Your task to perform on an android device: uninstall "Cash App" Image 0: 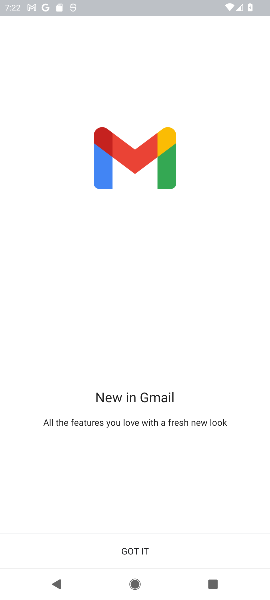
Step 0: press back button
Your task to perform on an android device: uninstall "Cash App" Image 1: 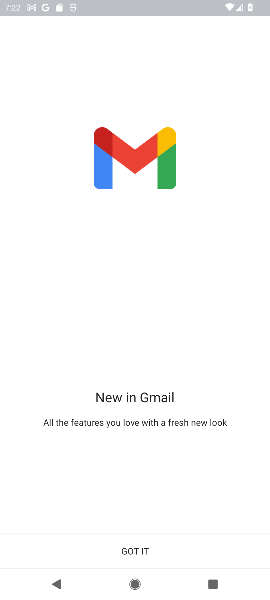
Step 1: press back button
Your task to perform on an android device: uninstall "Cash App" Image 2: 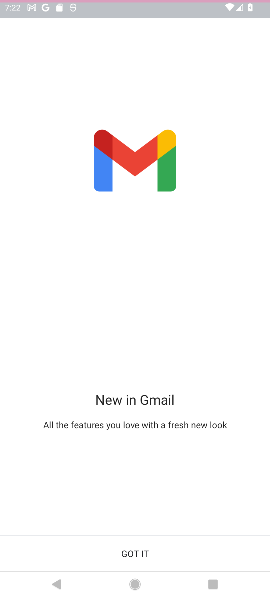
Step 2: press back button
Your task to perform on an android device: uninstall "Cash App" Image 3: 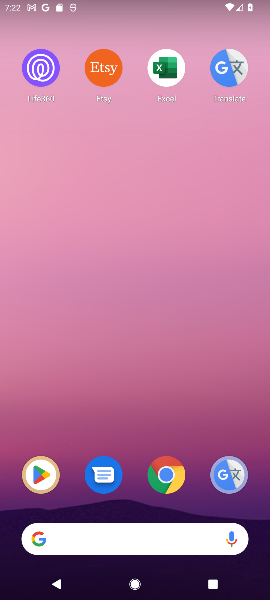
Step 3: drag from (167, 518) to (107, 78)
Your task to perform on an android device: uninstall "Cash App" Image 4: 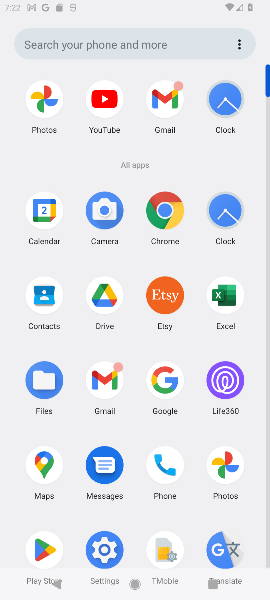
Step 4: drag from (183, 418) to (123, 27)
Your task to perform on an android device: uninstall "Cash App" Image 5: 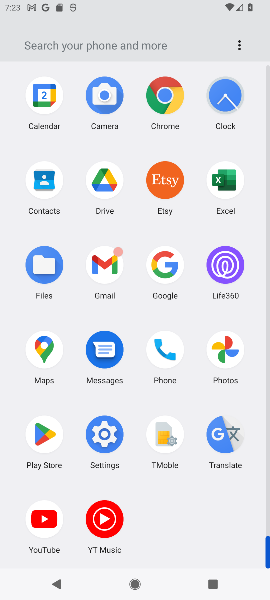
Step 5: click (46, 431)
Your task to perform on an android device: uninstall "Cash App" Image 6: 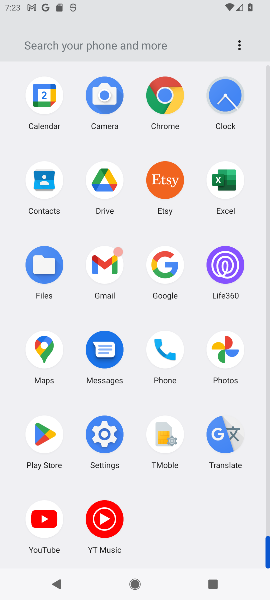
Step 6: click (47, 431)
Your task to perform on an android device: uninstall "Cash App" Image 7: 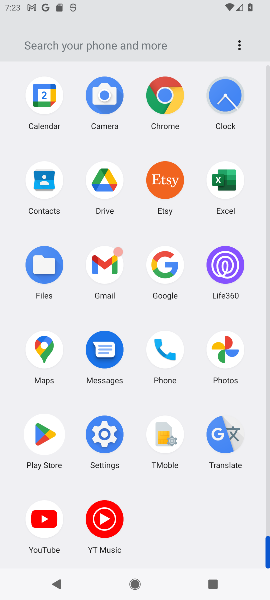
Step 7: click (47, 431)
Your task to perform on an android device: uninstall "Cash App" Image 8: 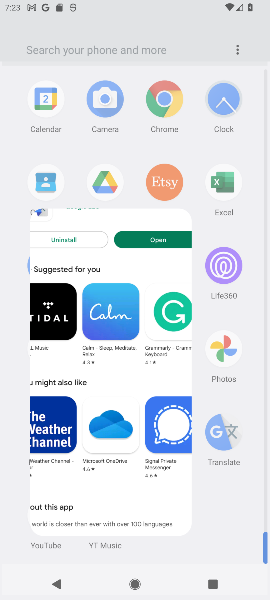
Step 8: click (47, 431)
Your task to perform on an android device: uninstall "Cash App" Image 9: 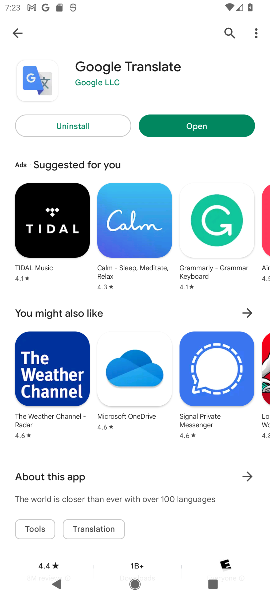
Step 9: click (16, 33)
Your task to perform on an android device: uninstall "Cash App" Image 10: 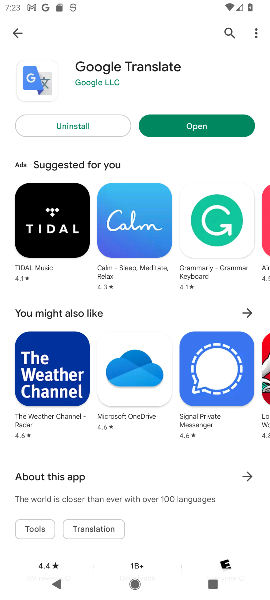
Step 10: click (15, 32)
Your task to perform on an android device: uninstall "Cash App" Image 11: 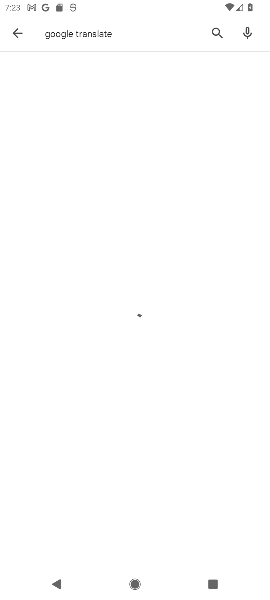
Step 11: click (15, 32)
Your task to perform on an android device: uninstall "Cash App" Image 12: 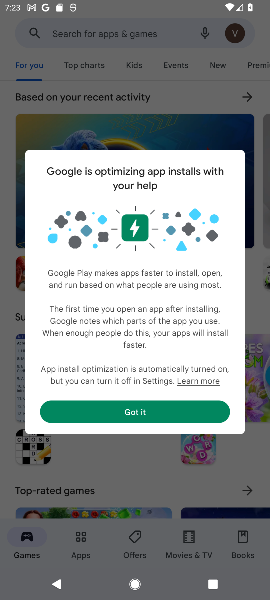
Step 12: click (88, 31)
Your task to perform on an android device: uninstall "Cash App" Image 13: 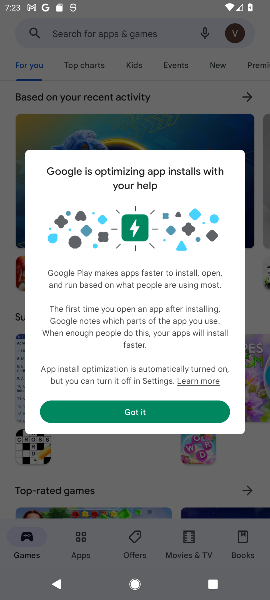
Step 13: click (88, 31)
Your task to perform on an android device: uninstall "Cash App" Image 14: 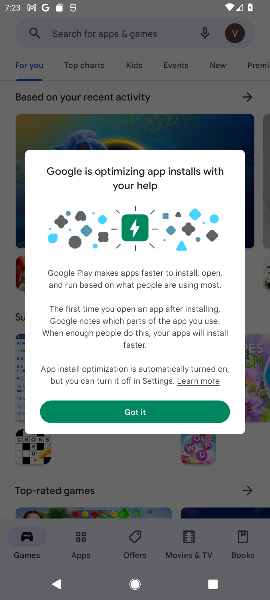
Step 14: click (89, 30)
Your task to perform on an android device: uninstall "Cash App" Image 15: 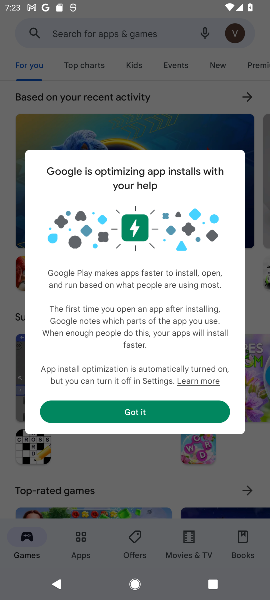
Step 15: click (71, 21)
Your task to perform on an android device: uninstall "Cash App" Image 16: 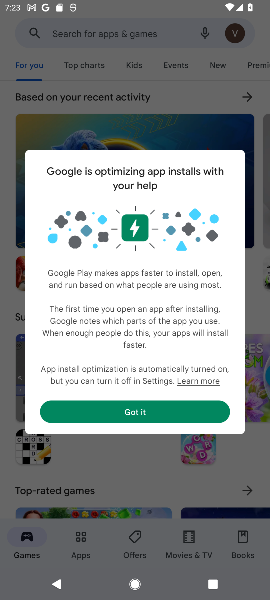
Step 16: click (71, 21)
Your task to perform on an android device: uninstall "Cash App" Image 17: 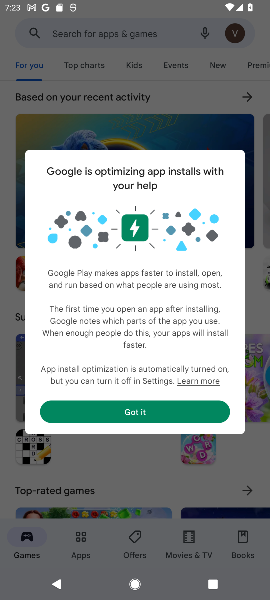
Step 17: click (71, 23)
Your task to perform on an android device: uninstall "Cash App" Image 18: 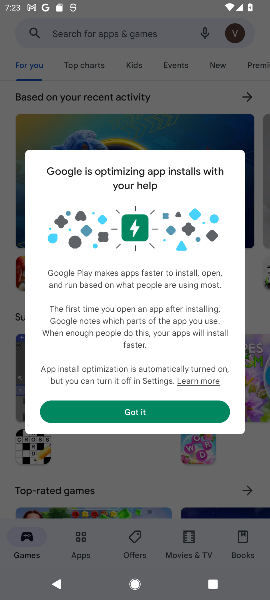
Step 18: click (71, 23)
Your task to perform on an android device: uninstall "Cash App" Image 19: 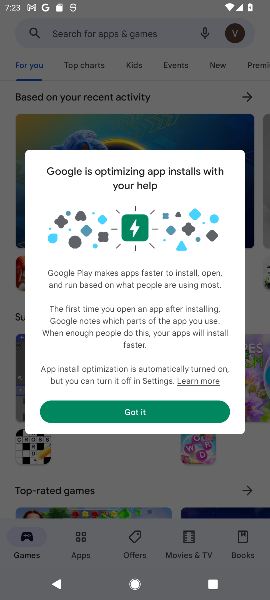
Step 19: click (71, 23)
Your task to perform on an android device: uninstall "Cash App" Image 20: 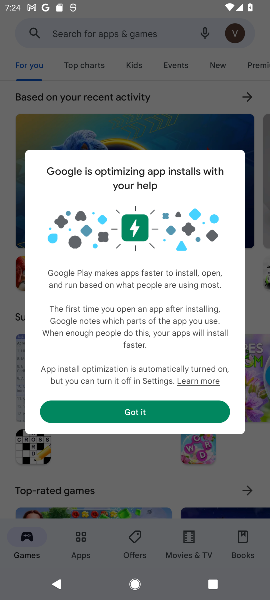
Step 20: click (71, 22)
Your task to perform on an android device: uninstall "Cash App" Image 21: 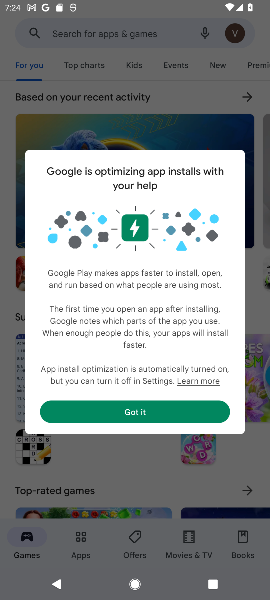
Step 21: click (71, 22)
Your task to perform on an android device: uninstall "Cash App" Image 22: 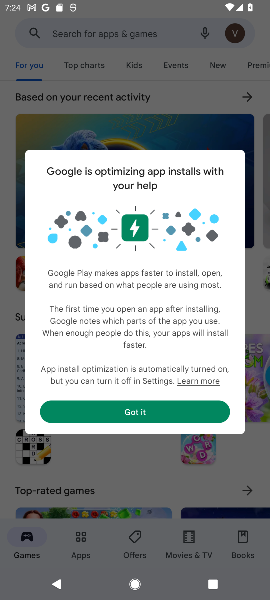
Step 22: click (71, 22)
Your task to perform on an android device: uninstall "Cash App" Image 23: 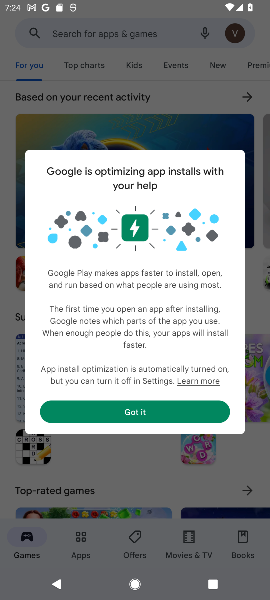
Step 23: click (71, 22)
Your task to perform on an android device: uninstall "Cash App" Image 24: 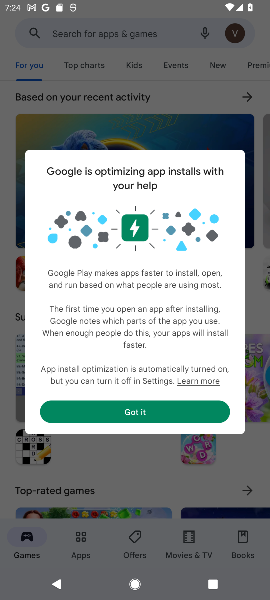
Step 24: click (73, 36)
Your task to perform on an android device: uninstall "Cash App" Image 25: 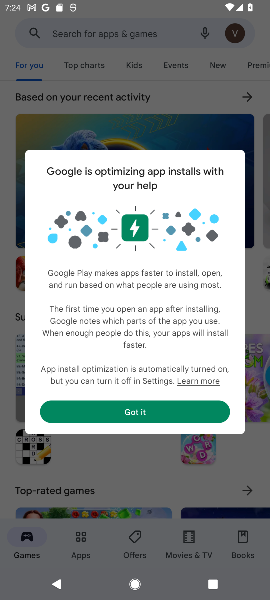
Step 25: click (74, 30)
Your task to perform on an android device: uninstall "Cash App" Image 26: 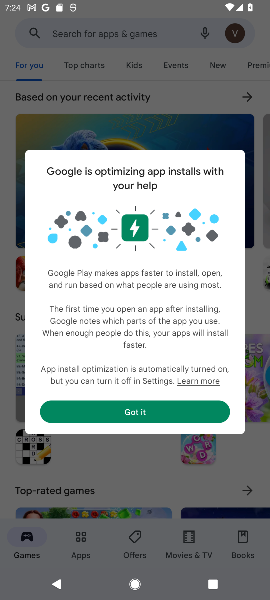
Step 26: click (74, 29)
Your task to perform on an android device: uninstall "Cash App" Image 27: 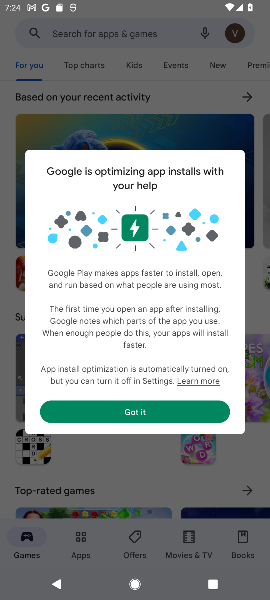
Step 27: click (152, 413)
Your task to perform on an android device: uninstall "Cash App" Image 28: 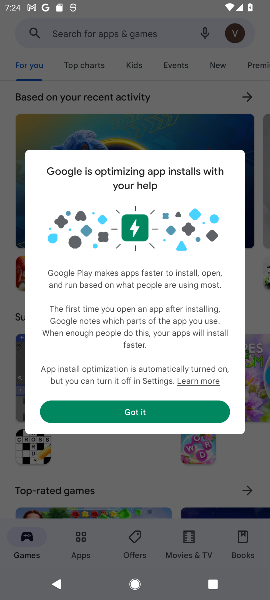
Step 28: click (152, 413)
Your task to perform on an android device: uninstall "Cash App" Image 29: 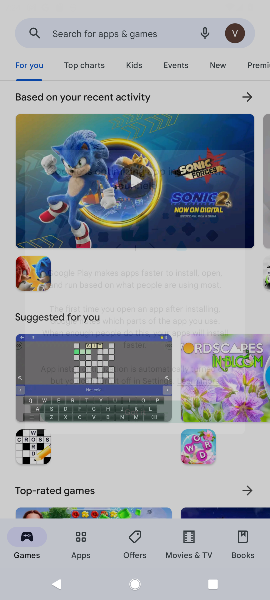
Step 29: click (152, 413)
Your task to perform on an android device: uninstall "Cash App" Image 30: 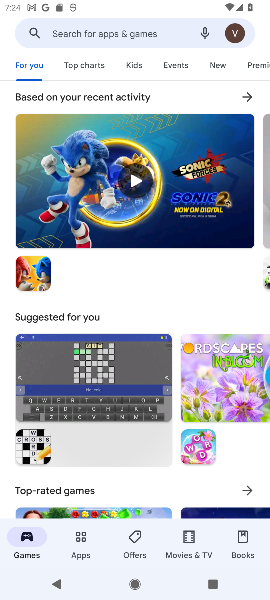
Step 30: click (151, 414)
Your task to perform on an android device: uninstall "Cash App" Image 31: 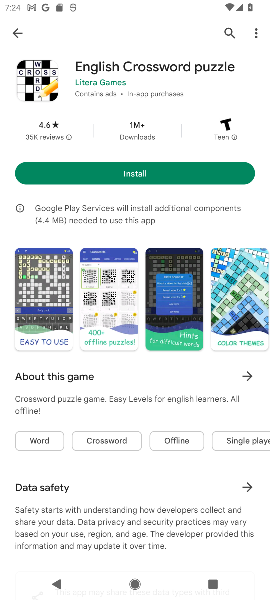
Step 31: click (19, 33)
Your task to perform on an android device: uninstall "Cash App" Image 32: 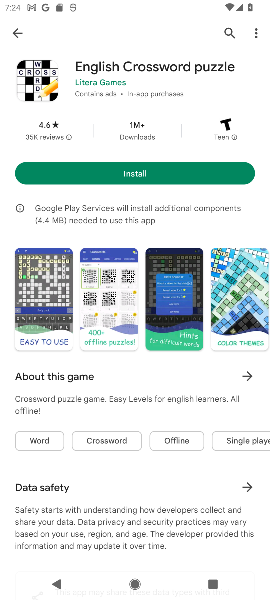
Step 32: click (19, 31)
Your task to perform on an android device: uninstall "Cash App" Image 33: 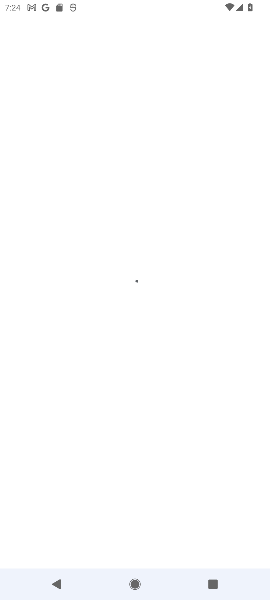
Step 33: click (19, 31)
Your task to perform on an android device: uninstall "Cash App" Image 34: 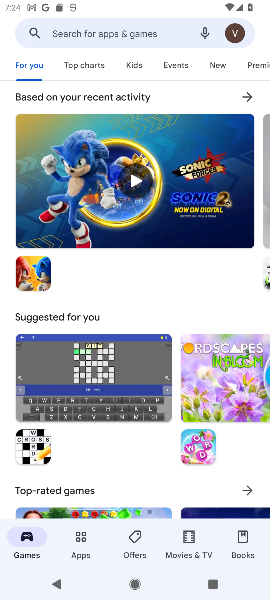
Step 34: click (22, 29)
Your task to perform on an android device: uninstall "Cash App" Image 35: 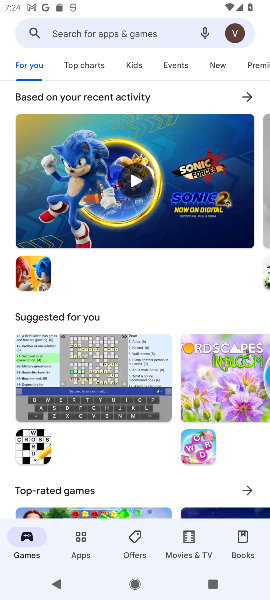
Step 35: type "cash app"
Your task to perform on an android device: uninstall "Cash App" Image 36: 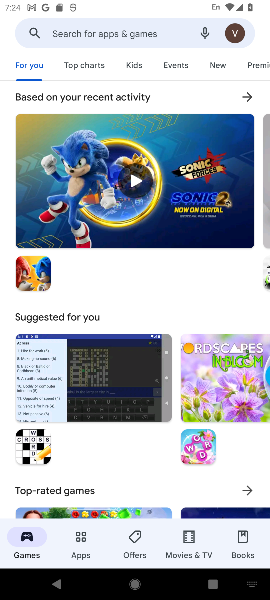
Step 36: click (155, 34)
Your task to perform on an android device: uninstall "Cash App" Image 37: 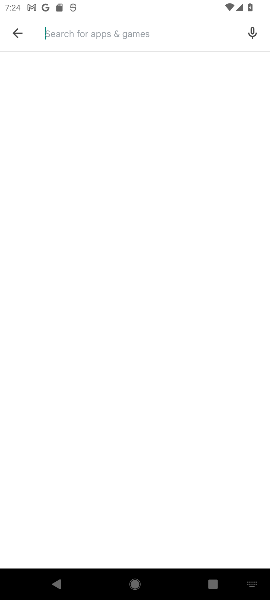
Step 37: click (155, 34)
Your task to perform on an android device: uninstall "Cash App" Image 38: 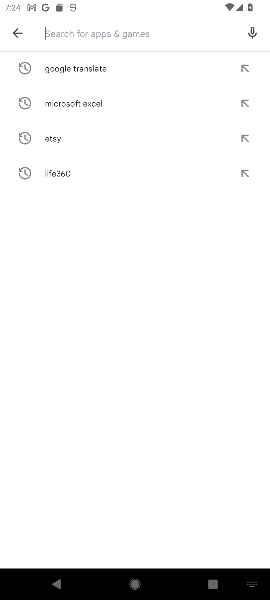
Step 38: click (155, 34)
Your task to perform on an android device: uninstall "Cash App" Image 39: 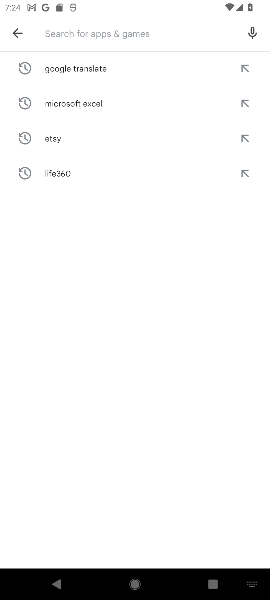
Step 39: type "Cash App"
Your task to perform on an android device: uninstall "Cash App" Image 40: 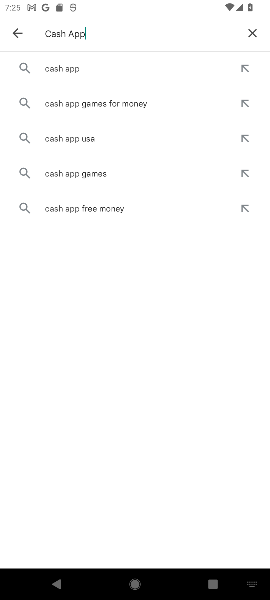
Step 40: click (59, 73)
Your task to perform on an android device: uninstall "Cash App" Image 41: 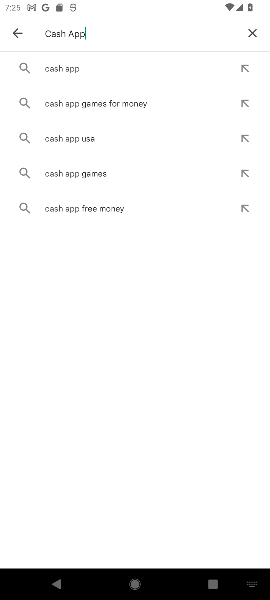
Step 41: click (59, 73)
Your task to perform on an android device: uninstall "Cash App" Image 42: 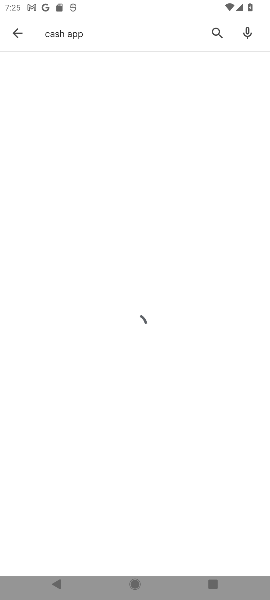
Step 42: click (59, 72)
Your task to perform on an android device: uninstall "Cash App" Image 43: 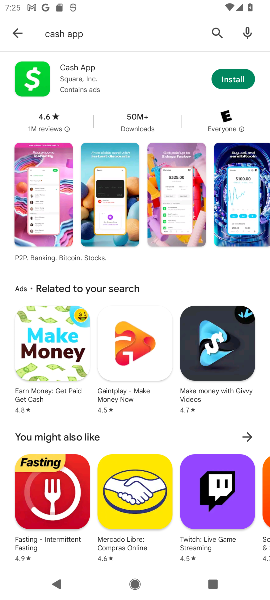
Step 43: task complete